Your task to perform on an android device: What's on my calendar today? Image 0: 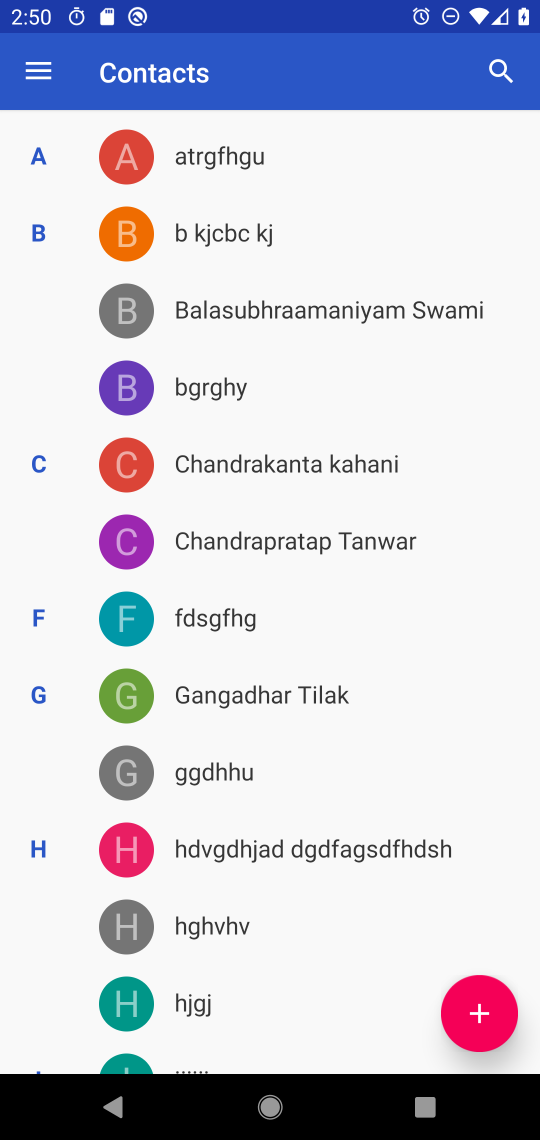
Step 0: press home button
Your task to perform on an android device: What's on my calendar today? Image 1: 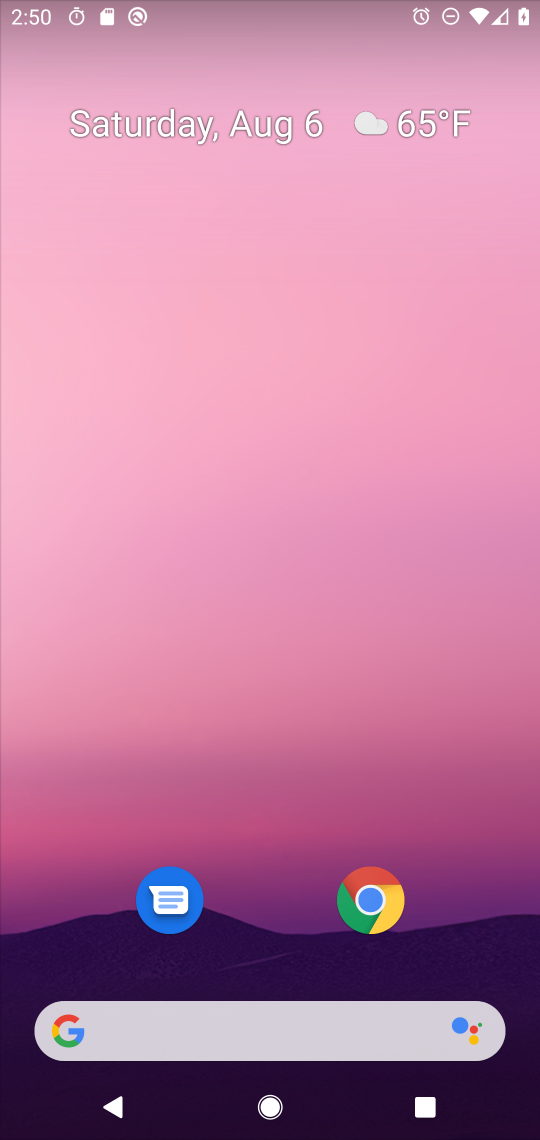
Step 1: click (270, 303)
Your task to perform on an android device: What's on my calendar today? Image 2: 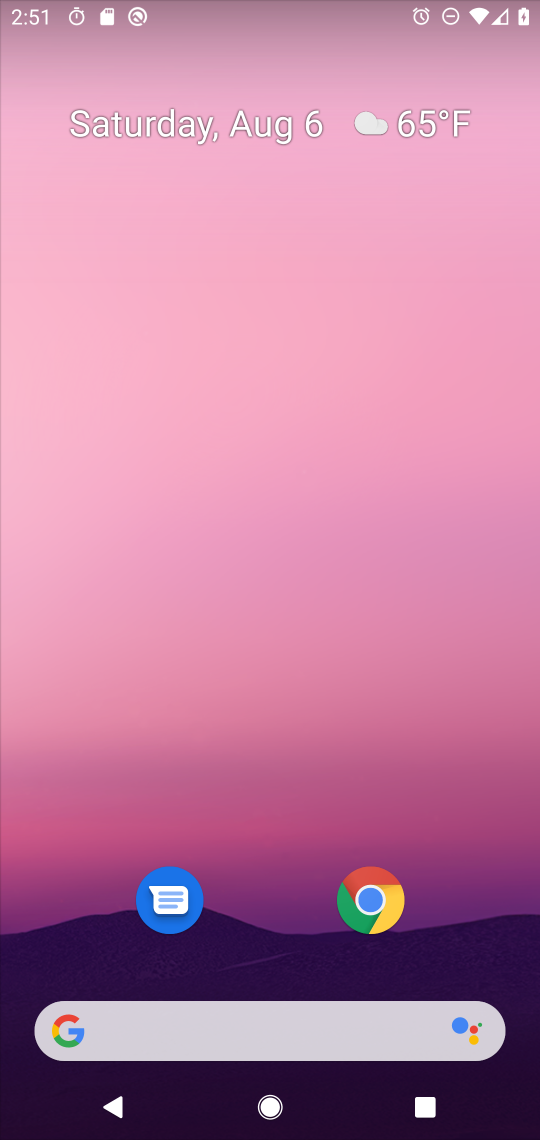
Step 2: drag from (276, 883) to (276, 334)
Your task to perform on an android device: What's on my calendar today? Image 3: 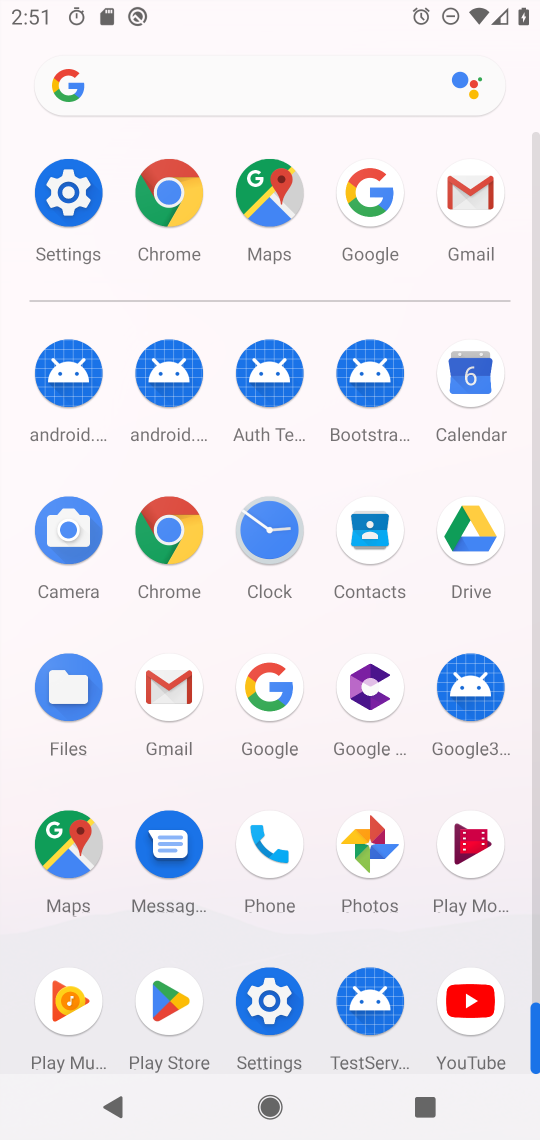
Step 3: click (467, 389)
Your task to perform on an android device: What's on my calendar today? Image 4: 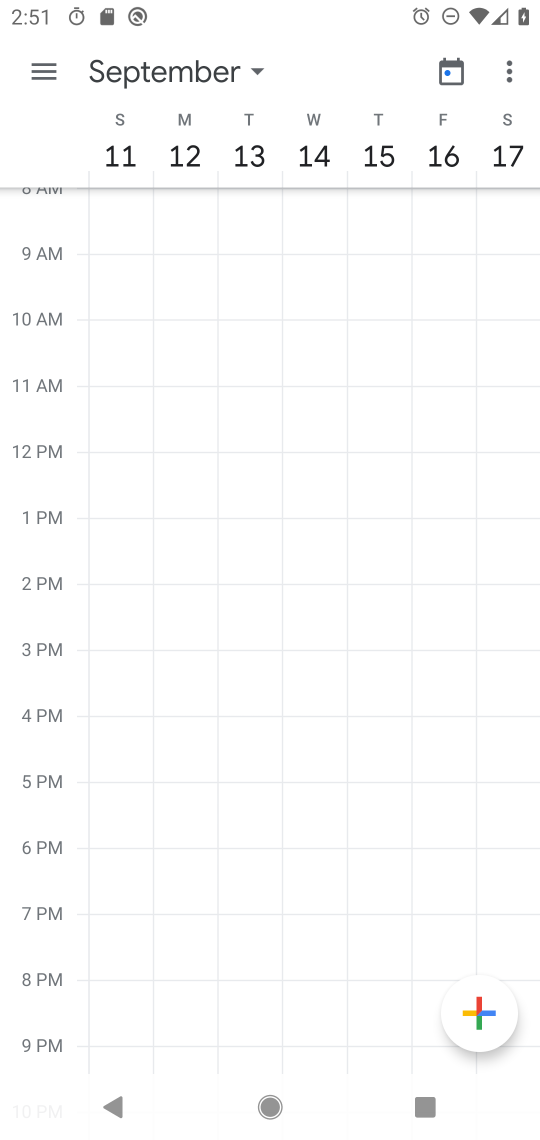
Step 4: click (258, 72)
Your task to perform on an android device: What's on my calendar today? Image 5: 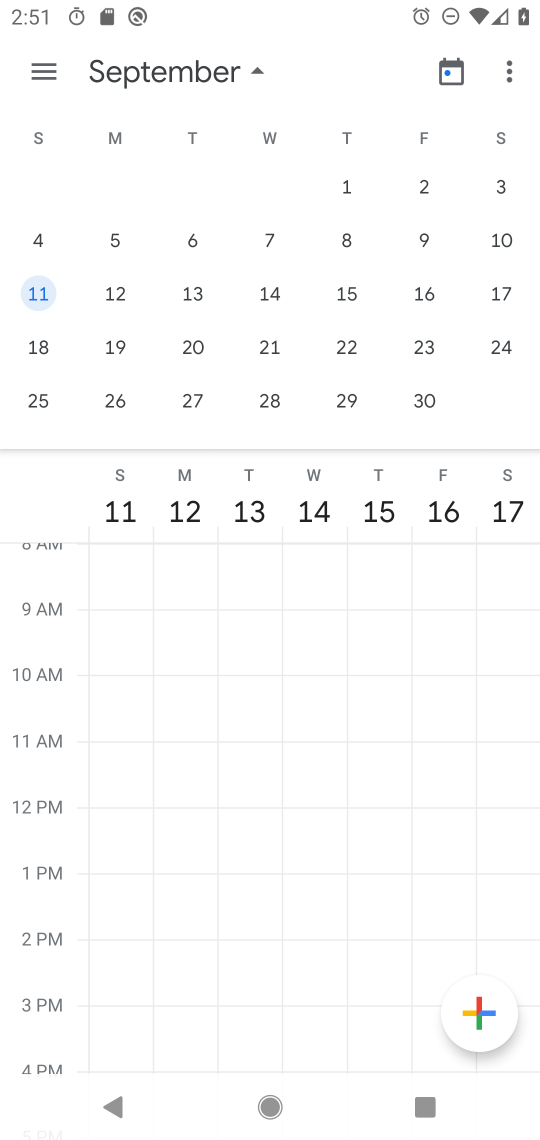
Step 5: drag from (118, 274) to (527, 270)
Your task to perform on an android device: What's on my calendar today? Image 6: 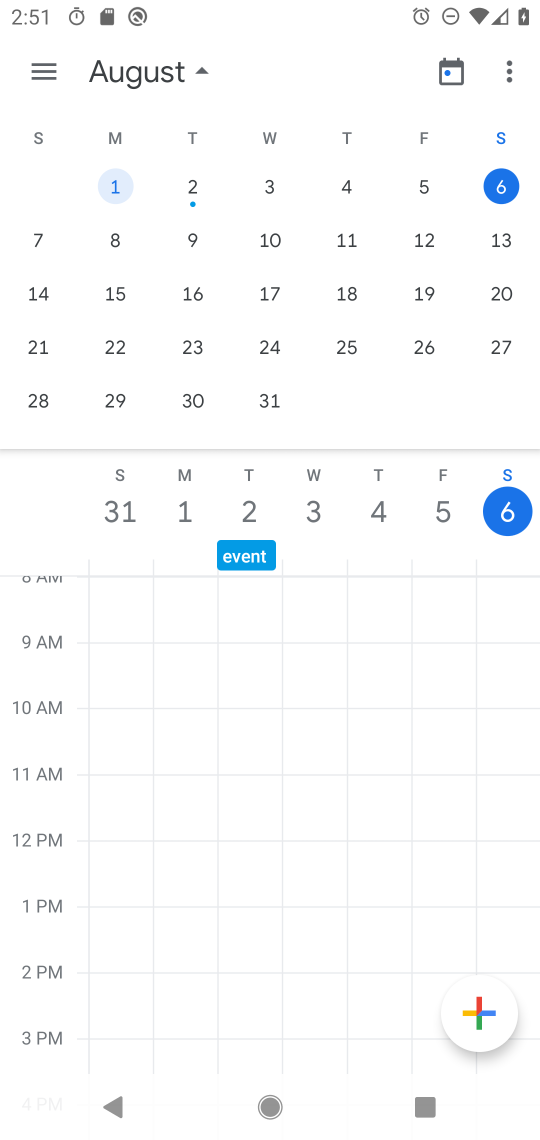
Step 6: click (502, 184)
Your task to perform on an android device: What's on my calendar today? Image 7: 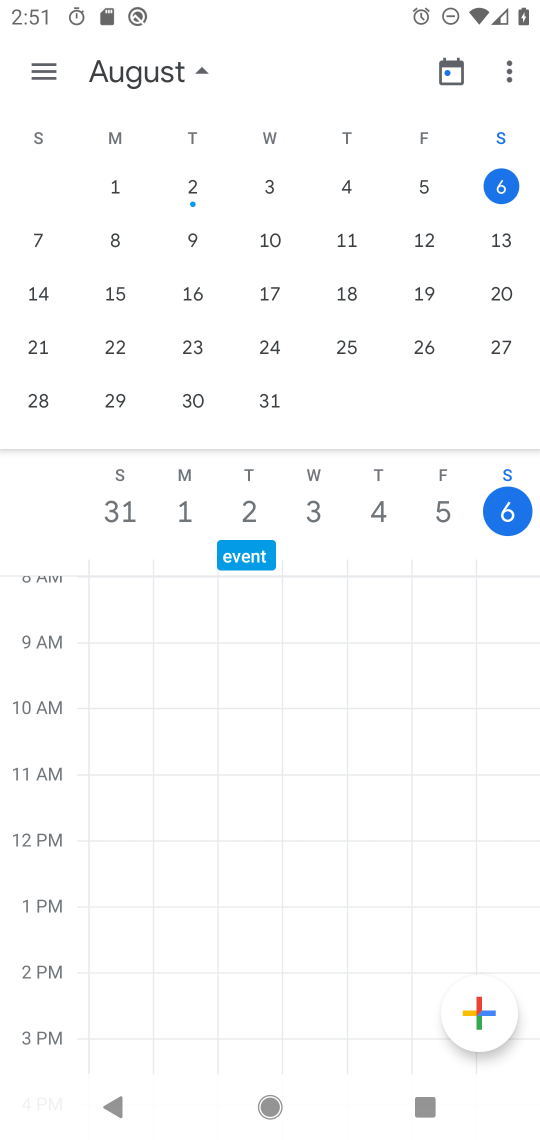
Step 7: click (514, 494)
Your task to perform on an android device: What's on my calendar today? Image 8: 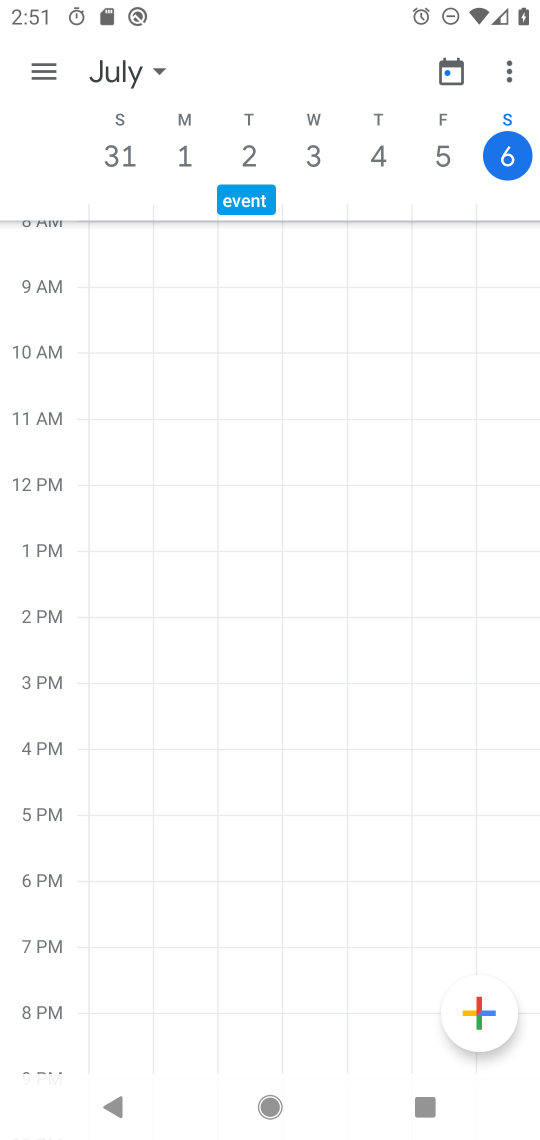
Step 8: click (508, 158)
Your task to perform on an android device: What's on my calendar today? Image 9: 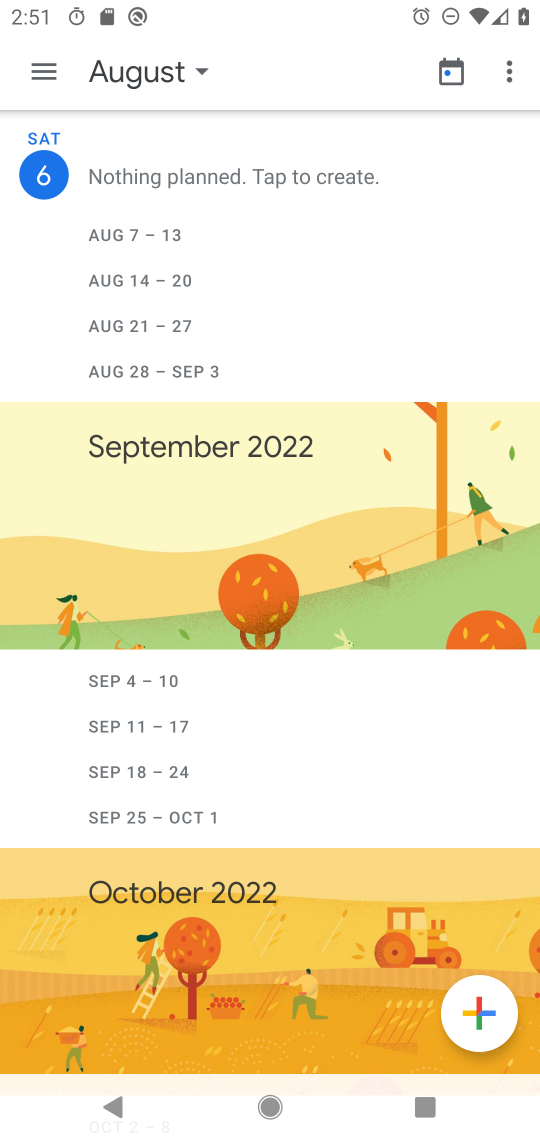
Step 9: task complete